Your task to perform on an android device: Search for Mexican restaurants on Maps Image 0: 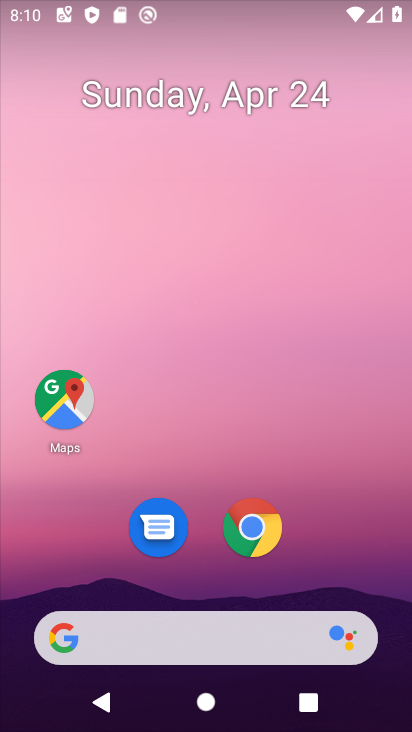
Step 0: drag from (354, 598) to (306, 96)
Your task to perform on an android device: Search for Mexican restaurants on Maps Image 1: 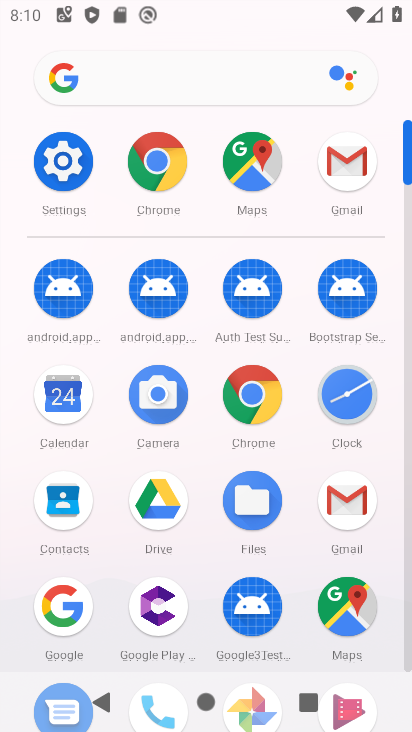
Step 1: click (249, 167)
Your task to perform on an android device: Search for Mexican restaurants on Maps Image 2: 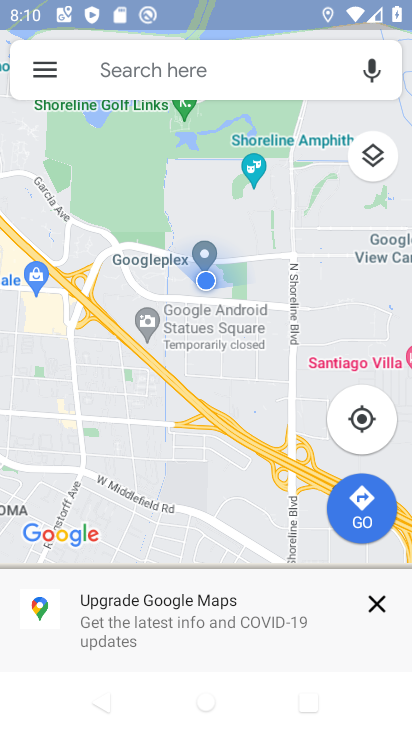
Step 2: click (139, 61)
Your task to perform on an android device: Search for Mexican restaurants on Maps Image 3: 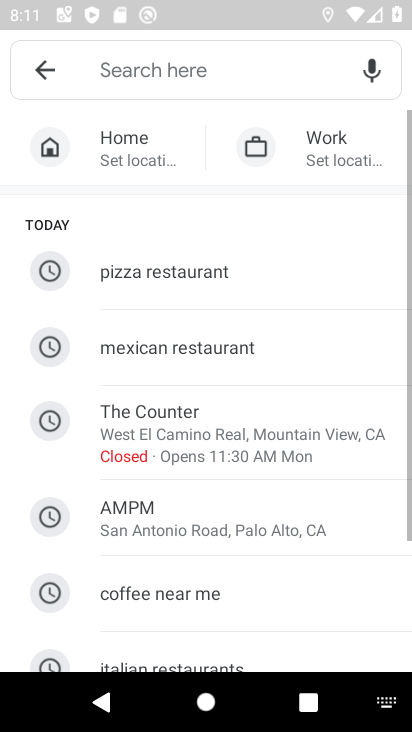
Step 3: click (208, 346)
Your task to perform on an android device: Search for Mexican restaurants on Maps Image 4: 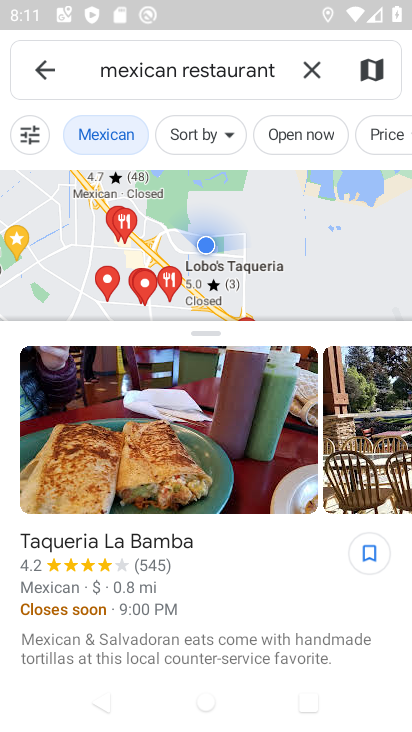
Step 4: task complete